Your task to perform on an android device: Open Google Chrome and click the shortcut for Amazon.com Image 0: 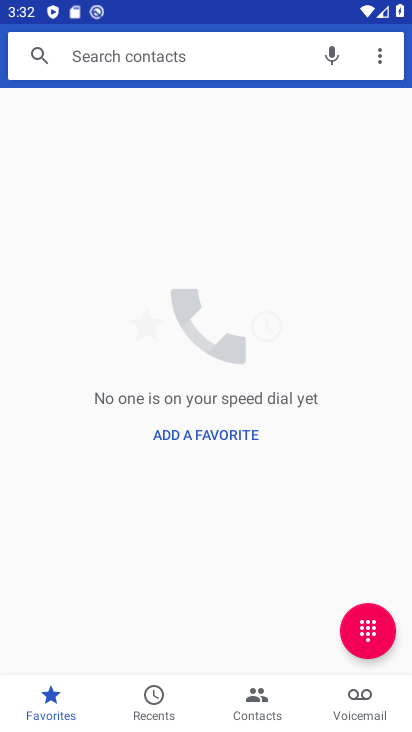
Step 0: press home button
Your task to perform on an android device: Open Google Chrome and click the shortcut for Amazon.com Image 1: 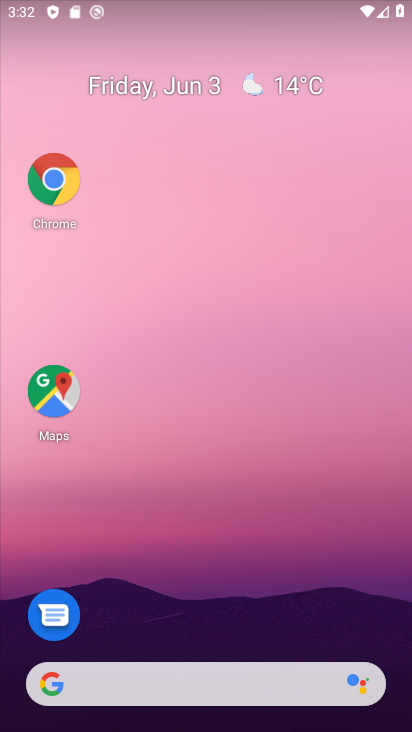
Step 1: click (53, 192)
Your task to perform on an android device: Open Google Chrome and click the shortcut for Amazon.com Image 2: 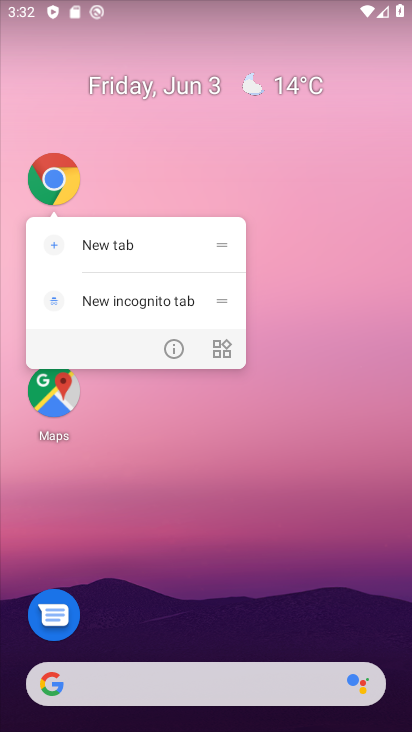
Step 2: click (48, 178)
Your task to perform on an android device: Open Google Chrome and click the shortcut for Amazon.com Image 3: 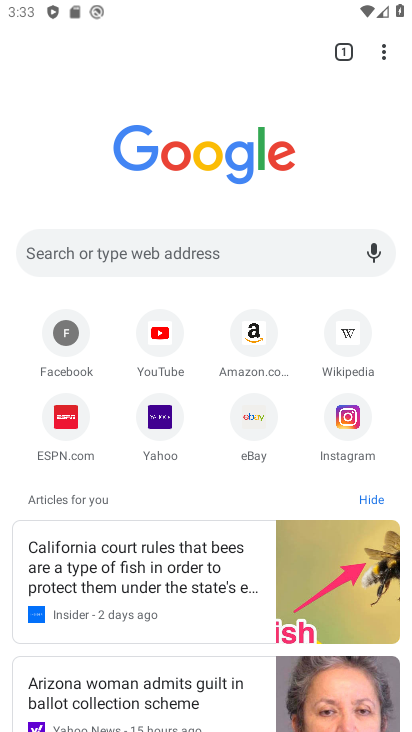
Step 3: click (253, 337)
Your task to perform on an android device: Open Google Chrome and click the shortcut for Amazon.com Image 4: 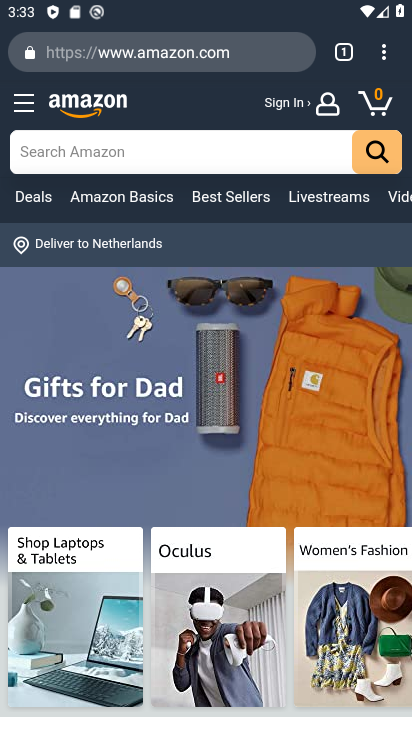
Step 4: task complete